Your task to perform on an android device: Is it going to rain today? Image 0: 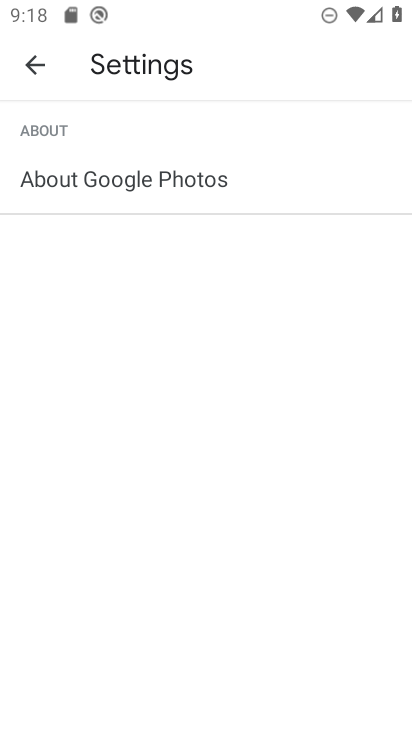
Step 0: press home button
Your task to perform on an android device: Is it going to rain today? Image 1: 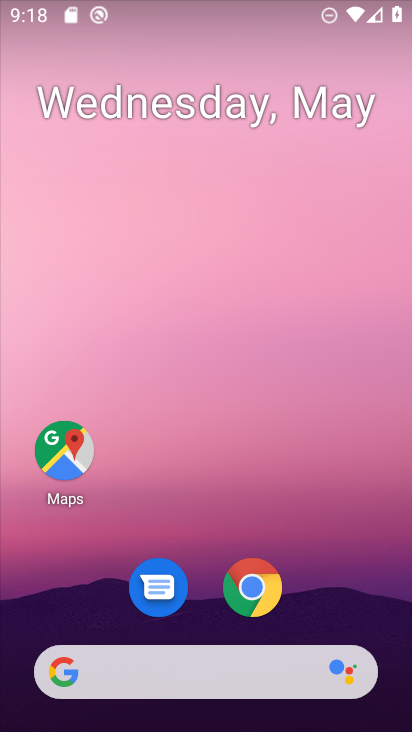
Step 1: drag from (210, 719) to (225, 230)
Your task to perform on an android device: Is it going to rain today? Image 2: 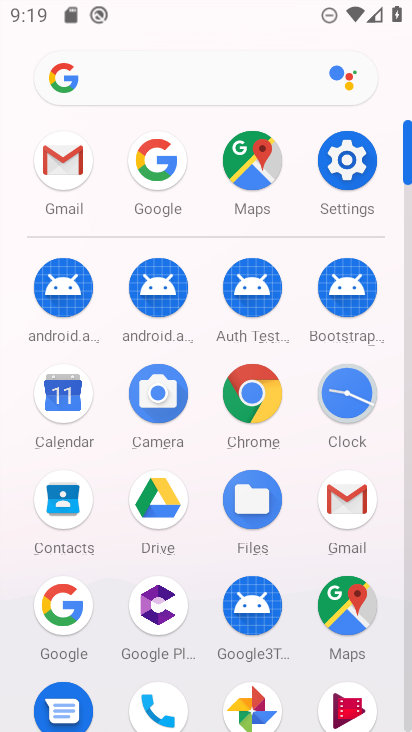
Step 2: click (60, 600)
Your task to perform on an android device: Is it going to rain today? Image 3: 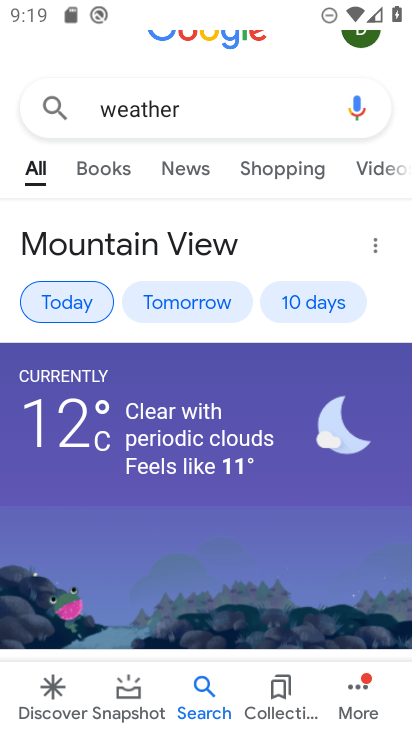
Step 3: click (66, 302)
Your task to perform on an android device: Is it going to rain today? Image 4: 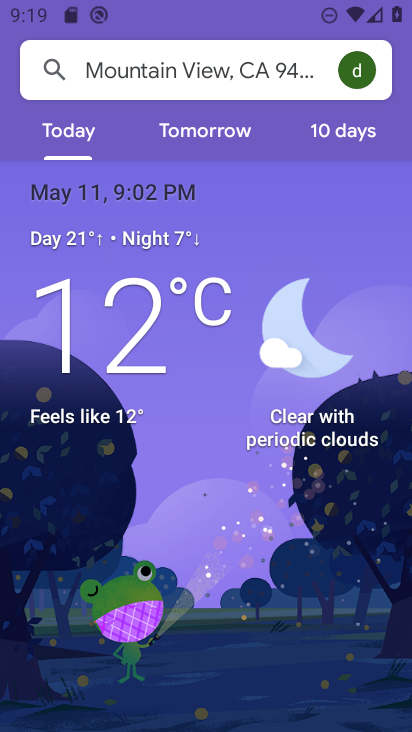
Step 4: task complete